Your task to perform on an android device: turn pop-ups on in chrome Image 0: 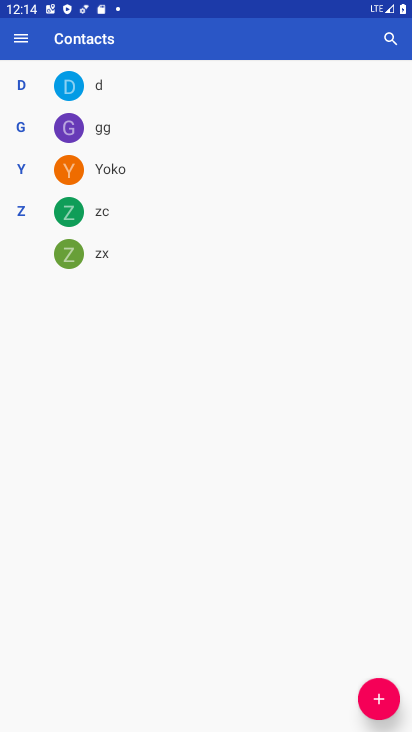
Step 0: press home button
Your task to perform on an android device: turn pop-ups on in chrome Image 1: 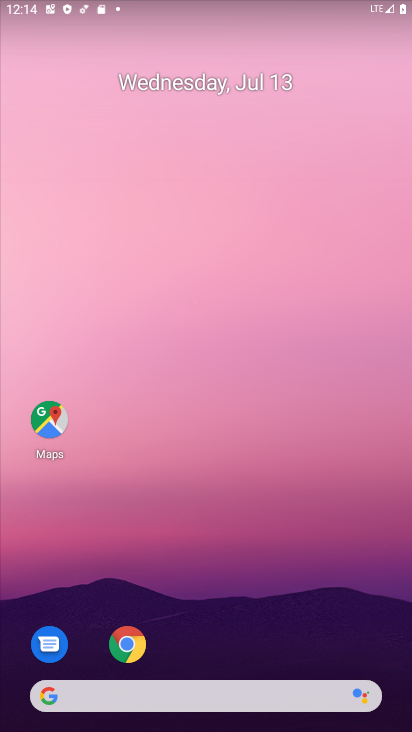
Step 1: click (130, 645)
Your task to perform on an android device: turn pop-ups on in chrome Image 2: 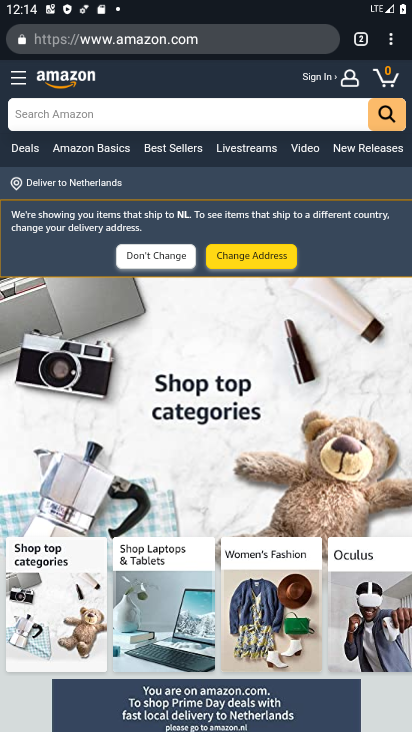
Step 2: click (386, 40)
Your task to perform on an android device: turn pop-ups on in chrome Image 3: 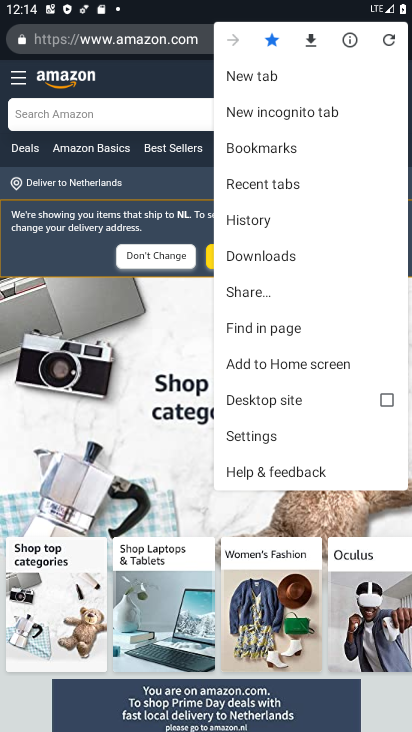
Step 3: click (250, 439)
Your task to perform on an android device: turn pop-ups on in chrome Image 4: 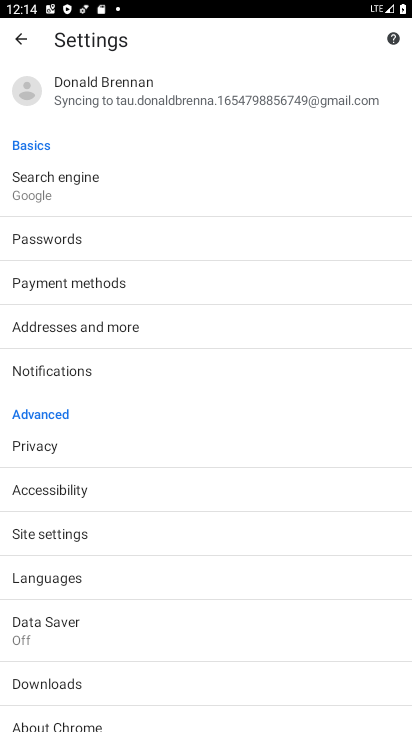
Step 4: click (53, 539)
Your task to perform on an android device: turn pop-ups on in chrome Image 5: 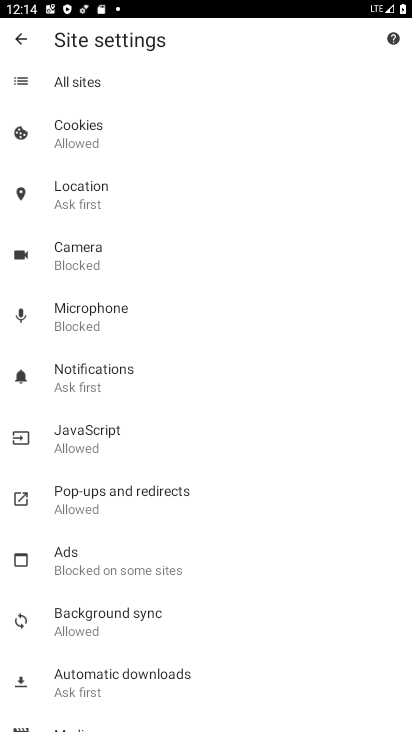
Step 5: click (107, 493)
Your task to perform on an android device: turn pop-ups on in chrome Image 6: 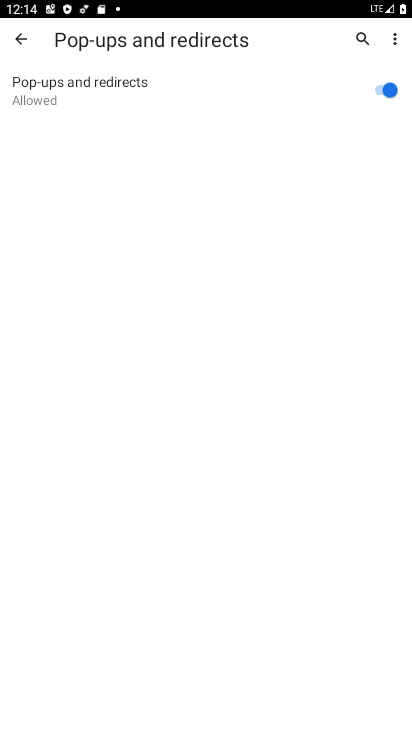
Step 6: task complete